Your task to perform on an android device: Open Google Maps Image 0: 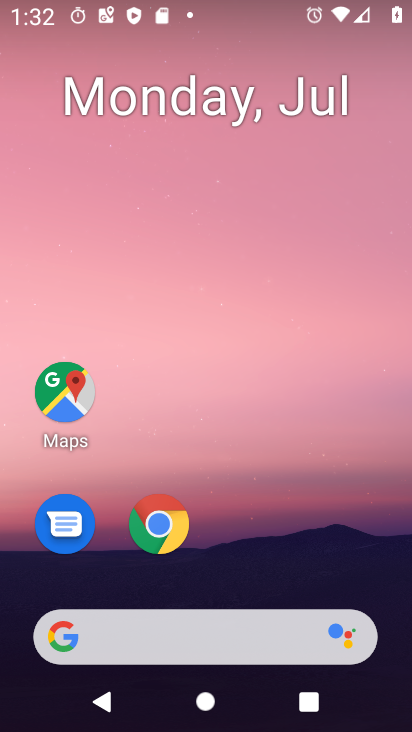
Step 0: press home button
Your task to perform on an android device: Open Google Maps Image 1: 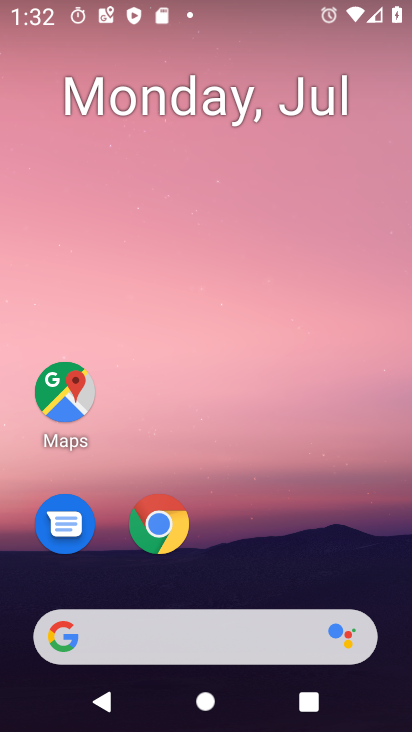
Step 1: press home button
Your task to perform on an android device: Open Google Maps Image 2: 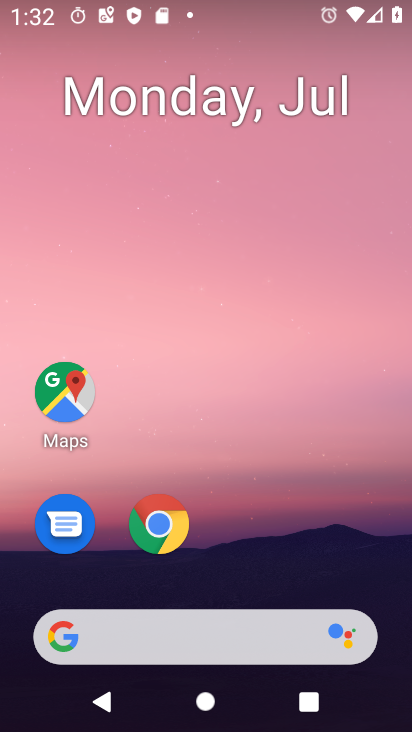
Step 2: click (63, 401)
Your task to perform on an android device: Open Google Maps Image 3: 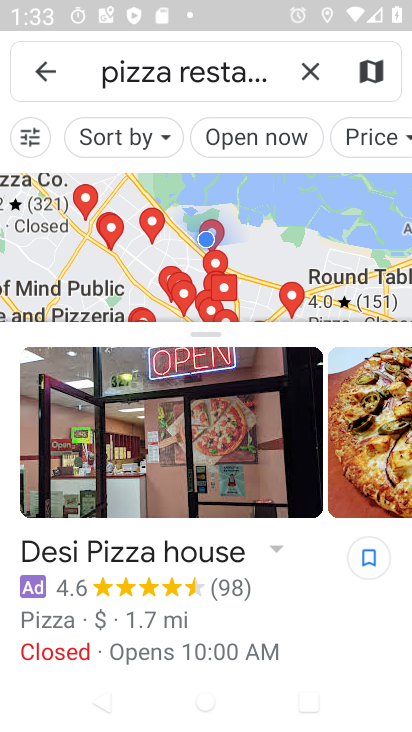
Step 3: click (46, 67)
Your task to perform on an android device: Open Google Maps Image 4: 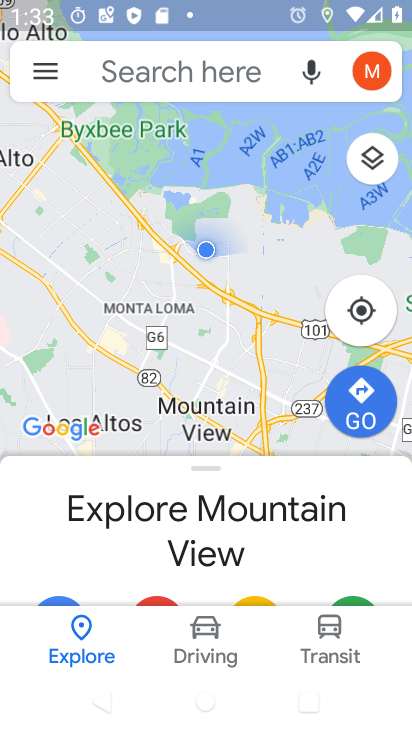
Step 4: task complete